Your task to perform on an android device: Do I have any events today? Image 0: 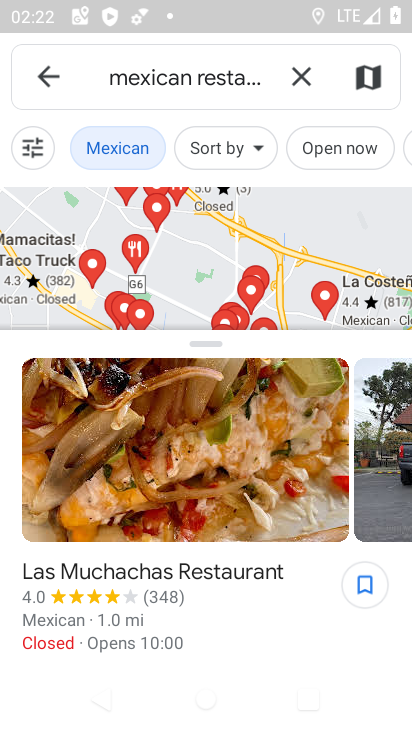
Step 0: press home button
Your task to perform on an android device: Do I have any events today? Image 1: 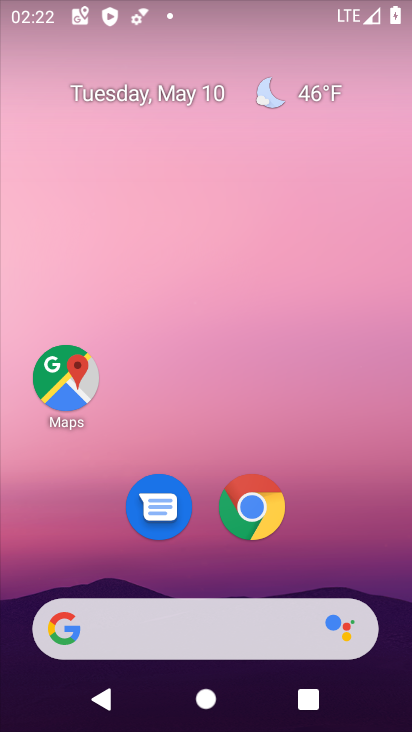
Step 1: drag from (285, 669) to (354, 188)
Your task to perform on an android device: Do I have any events today? Image 2: 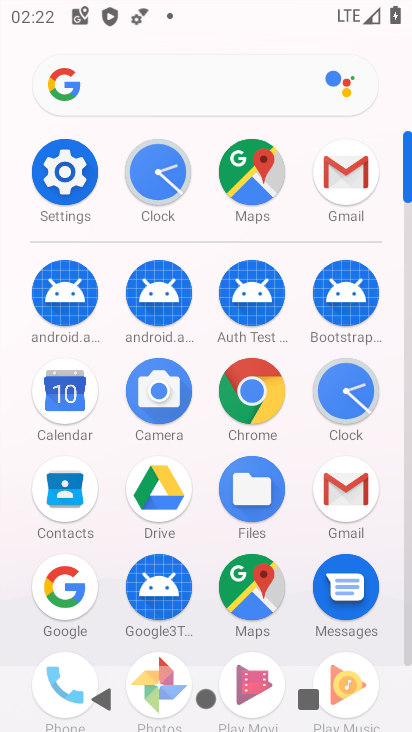
Step 2: click (75, 425)
Your task to perform on an android device: Do I have any events today? Image 3: 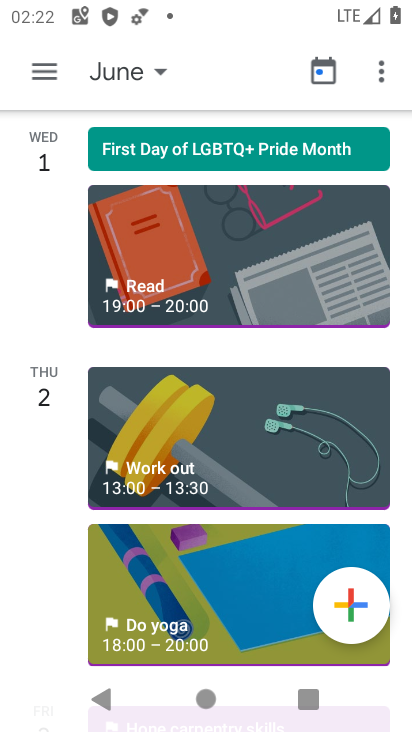
Step 3: click (37, 82)
Your task to perform on an android device: Do I have any events today? Image 4: 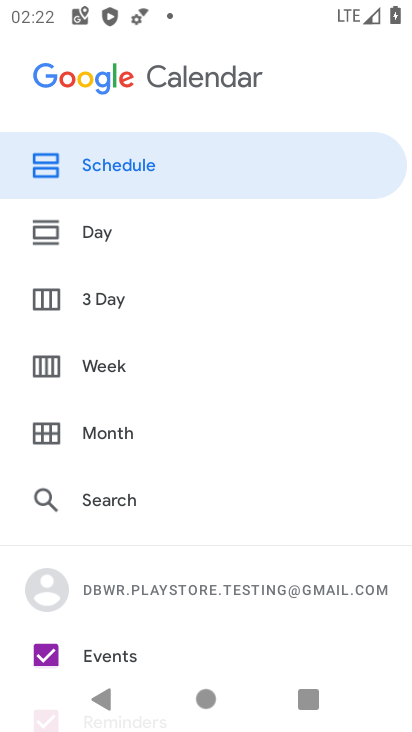
Step 4: click (110, 438)
Your task to perform on an android device: Do I have any events today? Image 5: 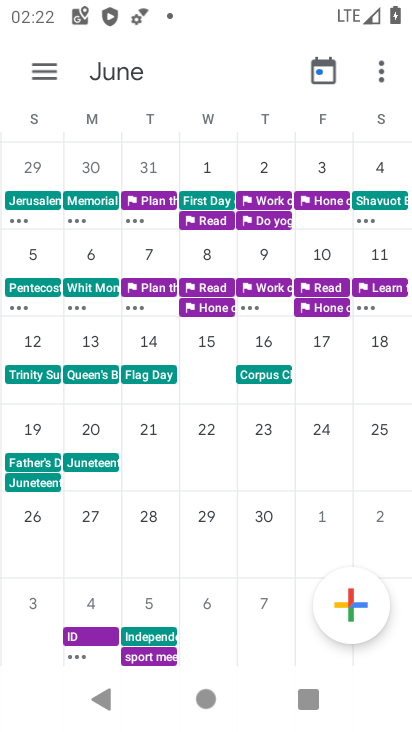
Step 5: drag from (72, 357) to (382, 341)
Your task to perform on an android device: Do I have any events today? Image 6: 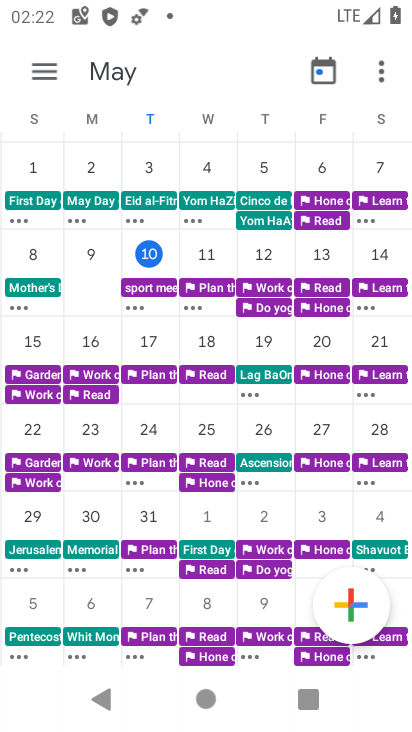
Step 6: click (27, 70)
Your task to perform on an android device: Do I have any events today? Image 7: 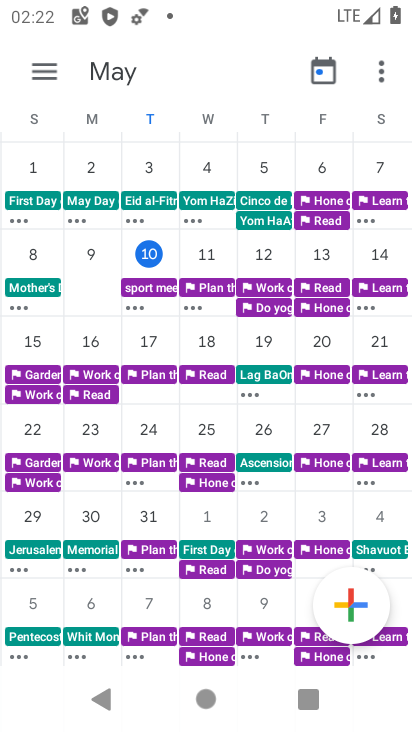
Step 7: click (58, 84)
Your task to perform on an android device: Do I have any events today? Image 8: 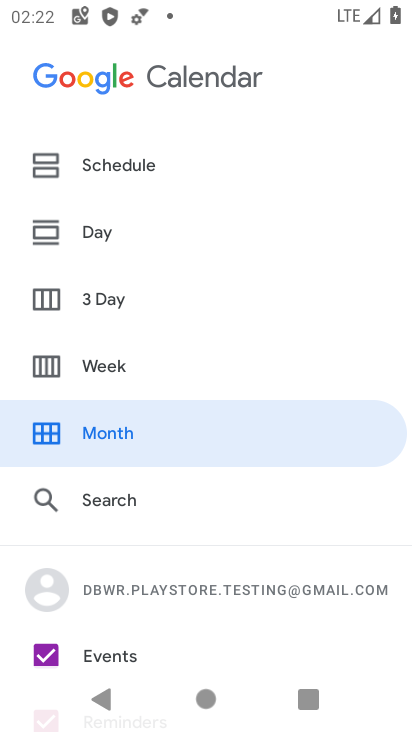
Step 8: click (91, 163)
Your task to perform on an android device: Do I have any events today? Image 9: 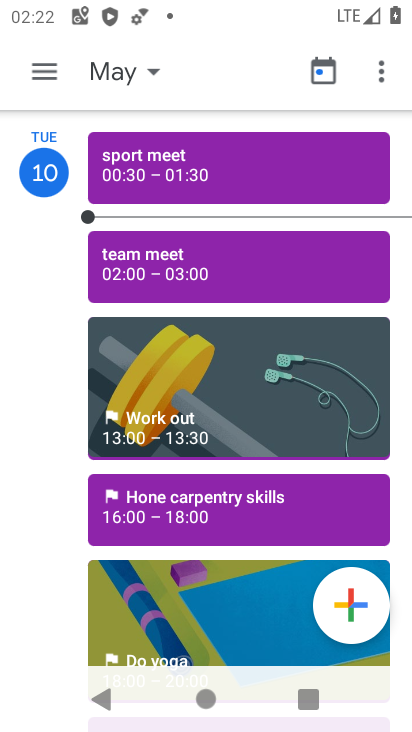
Step 9: task complete